Your task to perform on an android device: Empty the shopping cart on costco. Add macbook pro 15 inch to the cart on costco, then select checkout. Image 0: 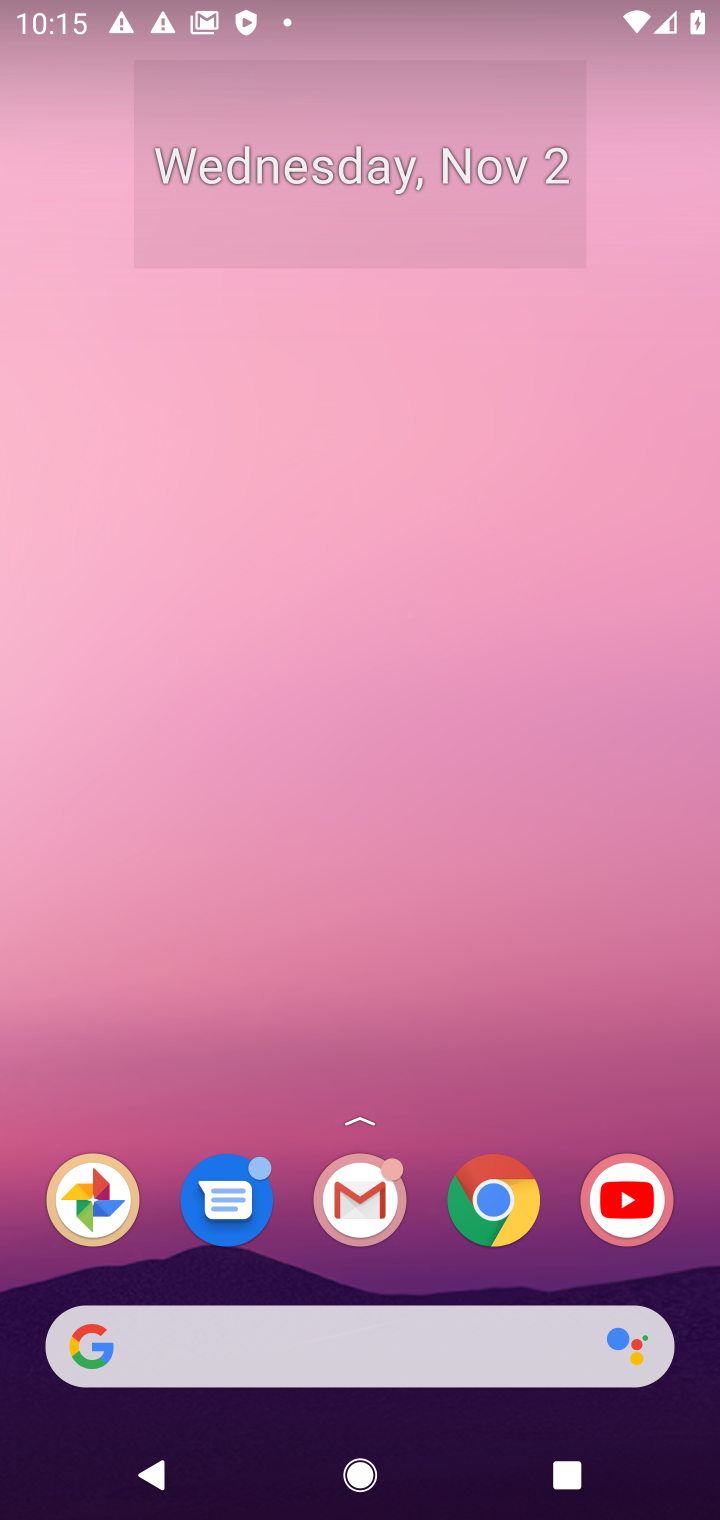
Step 0: click (495, 1201)
Your task to perform on an android device: Empty the shopping cart on costco. Add macbook pro 15 inch to the cart on costco, then select checkout. Image 1: 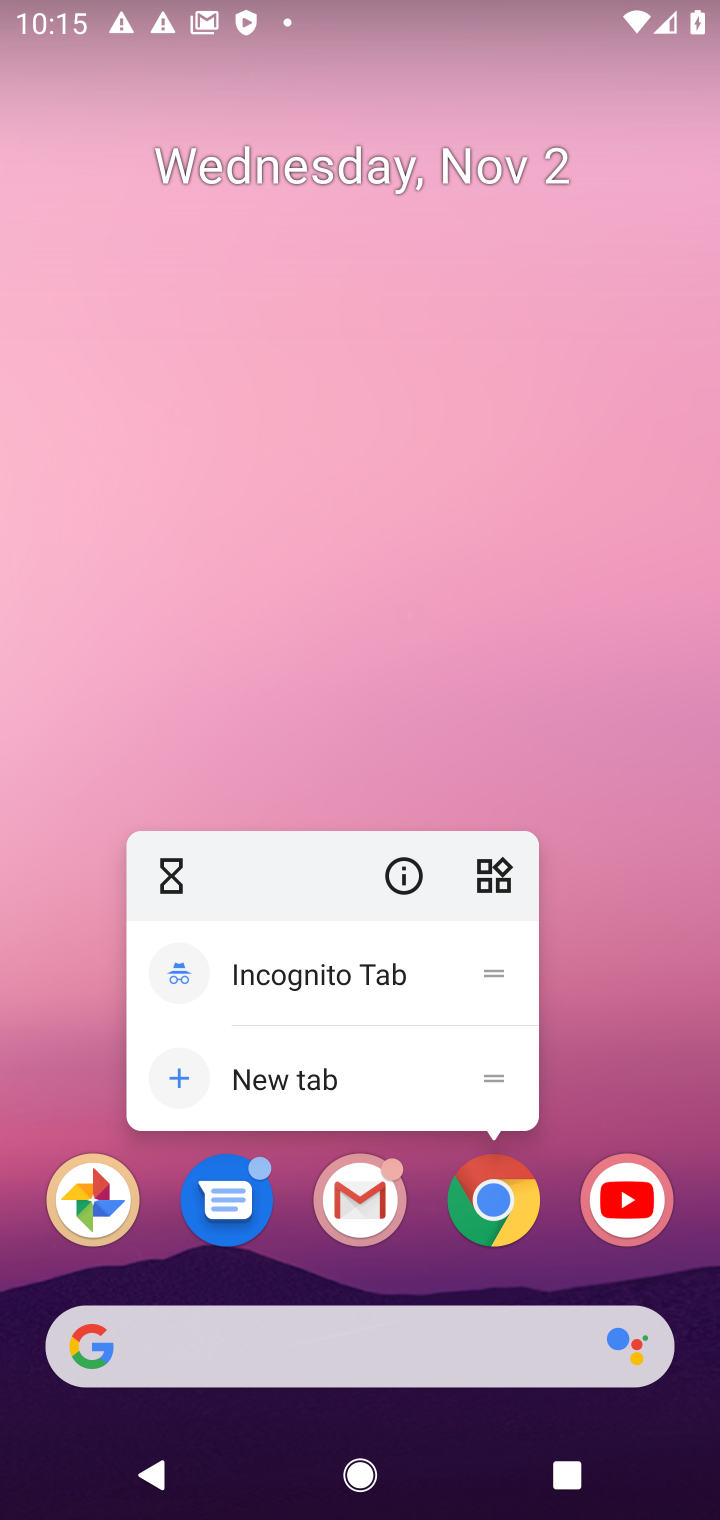
Step 1: click (495, 1201)
Your task to perform on an android device: Empty the shopping cart on costco. Add macbook pro 15 inch to the cart on costco, then select checkout. Image 2: 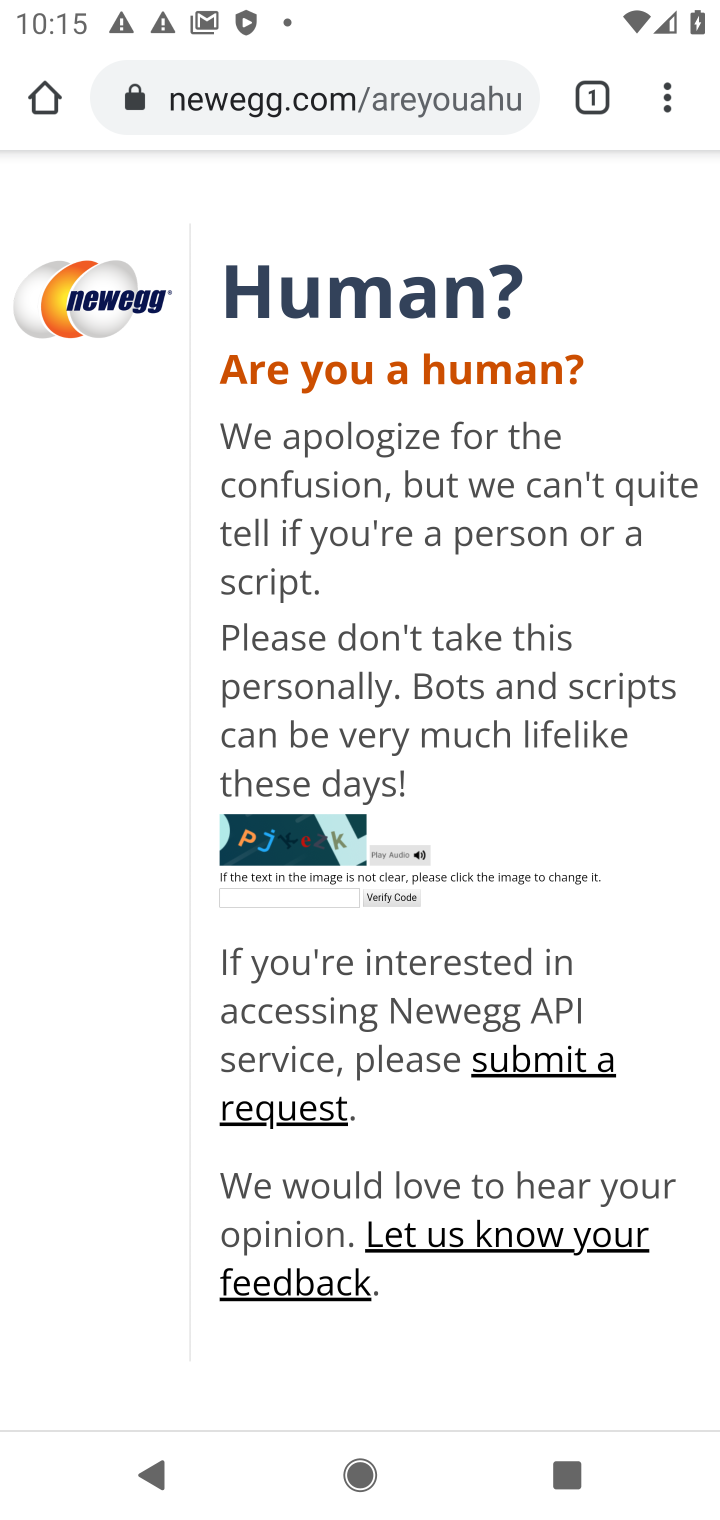
Step 2: click (424, 96)
Your task to perform on an android device: Empty the shopping cart on costco. Add macbook pro 15 inch to the cart on costco, then select checkout. Image 3: 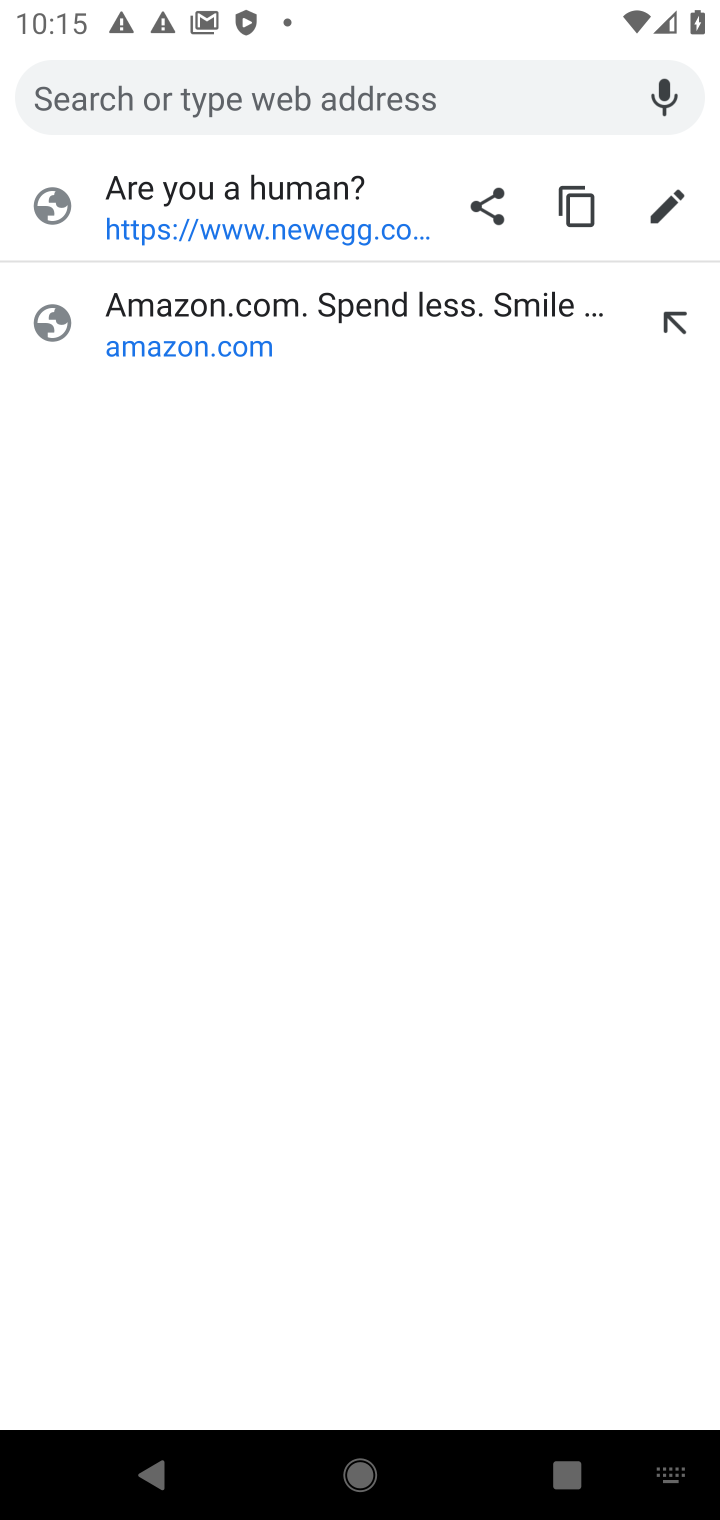
Step 3: press enter
Your task to perform on an android device: Empty the shopping cart on costco. Add macbook pro 15 inch to the cart on costco, then select checkout. Image 4: 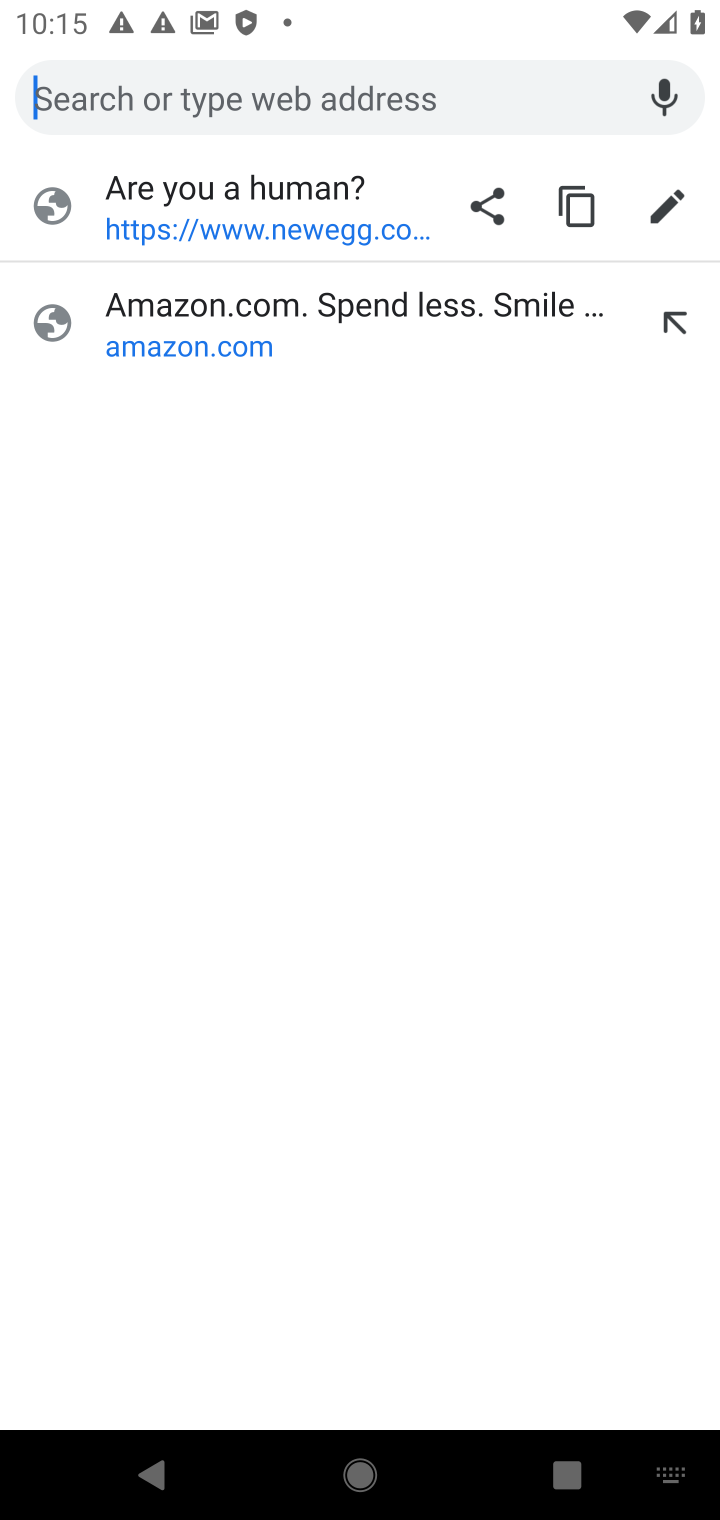
Step 4: type "costco"
Your task to perform on an android device: Empty the shopping cart on costco. Add macbook pro 15 inch to the cart on costco, then select checkout. Image 5: 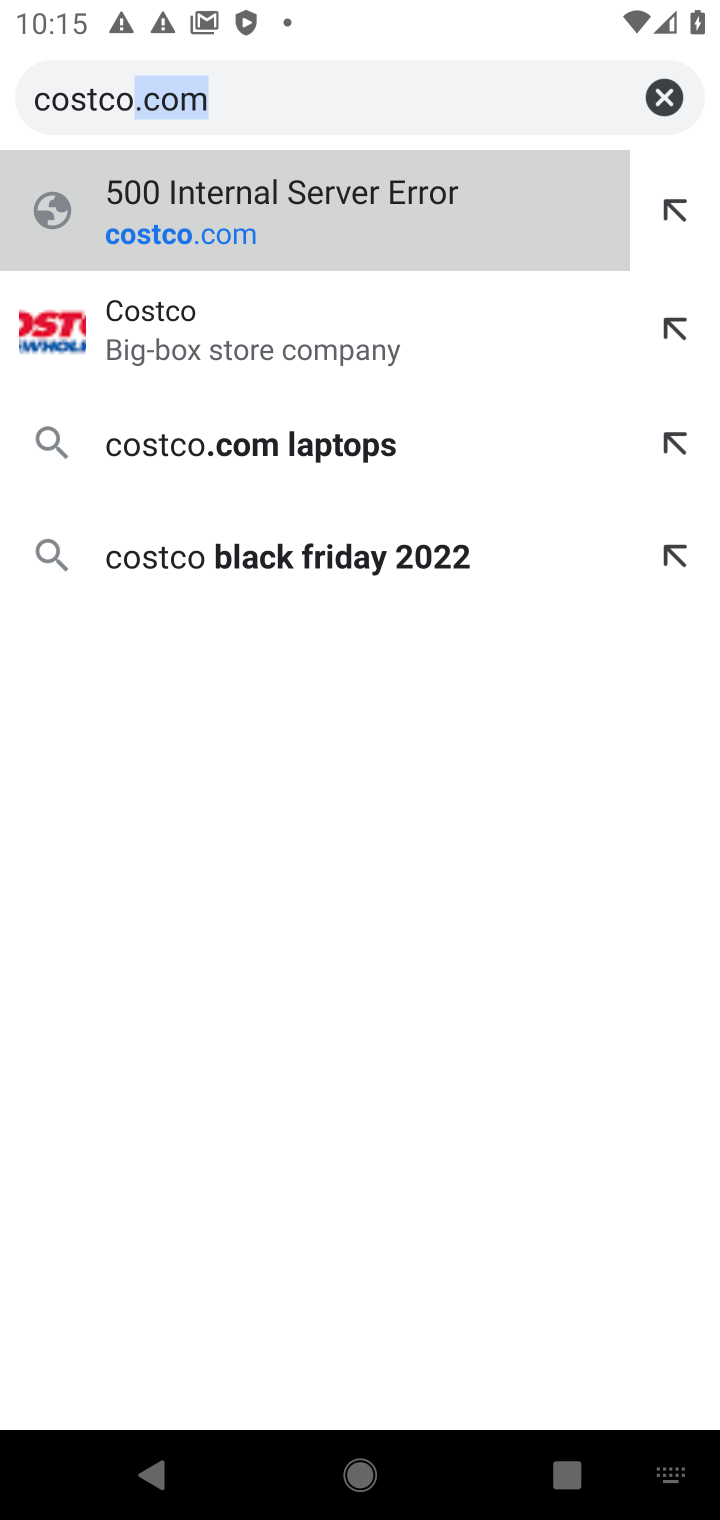
Step 5: click (314, 328)
Your task to perform on an android device: Empty the shopping cart on costco. Add macbook pro 15 inch to the cart on costco, then select checkout. Image 6: 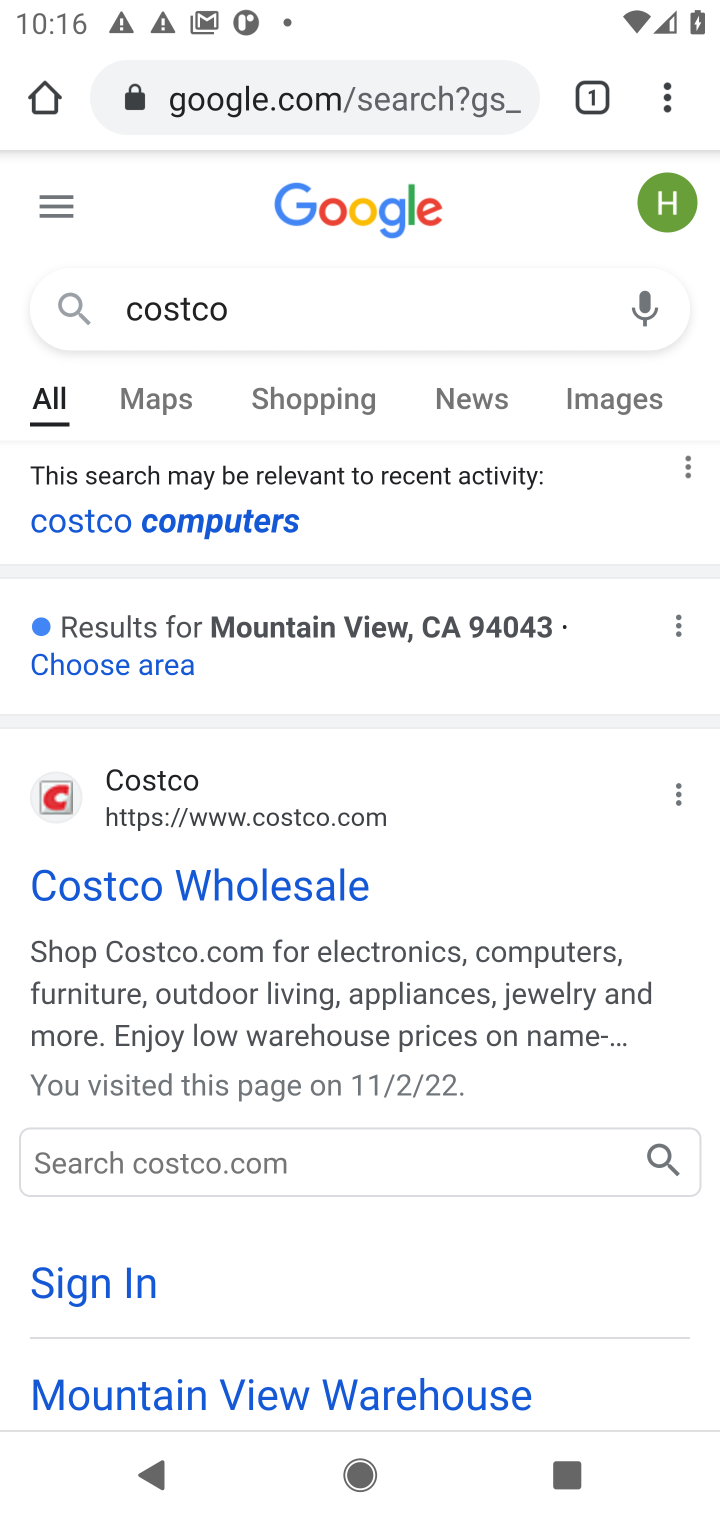
Step 6: click (307, 803)
Your task to perform on an android device: Empty the shopping cart on costco. Add macbook pro 15 inch to the cart on costco, then select checkout. Image 7: 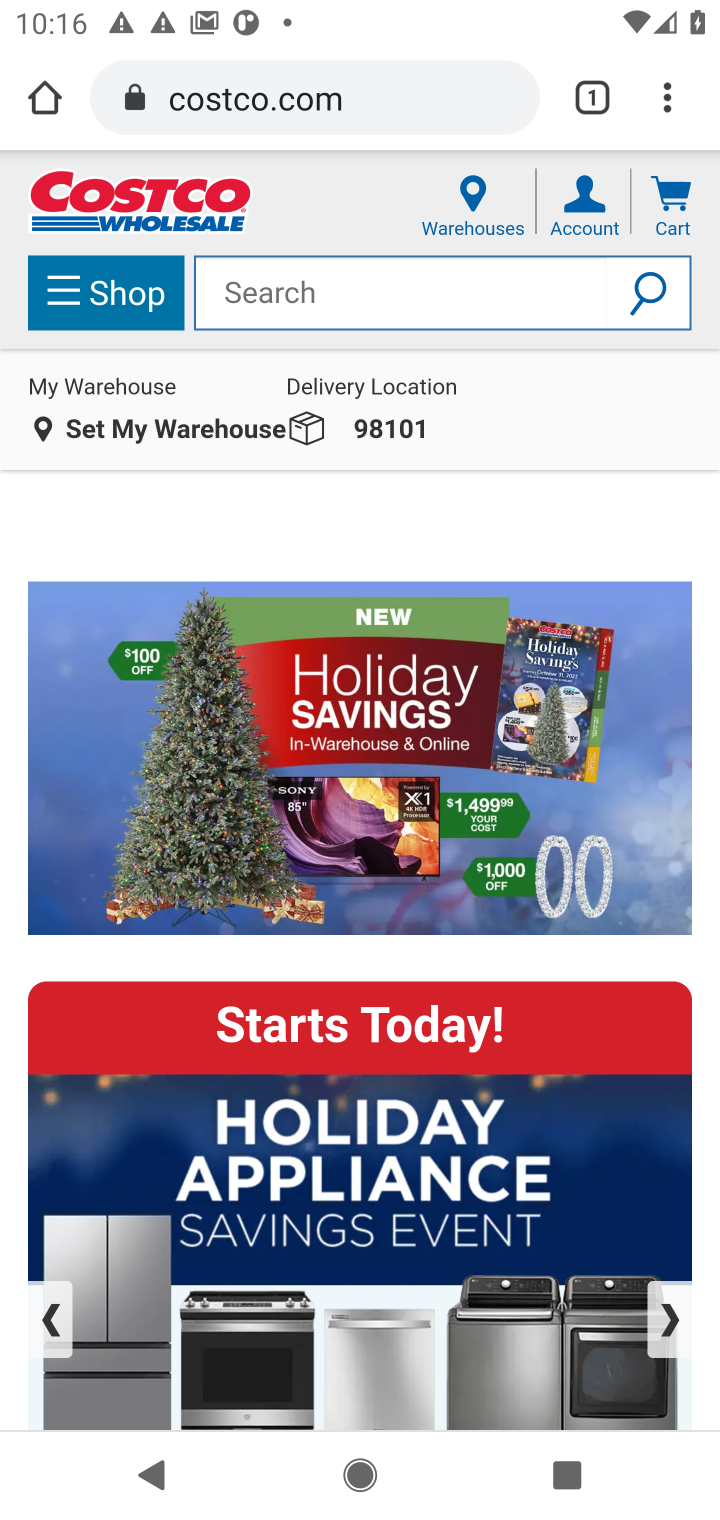
Step 7: click (680, 197)
Your task to perform on an android device: Empty the shopping cart on costco. Add macbook pro 15 inch to the cart on costco, then select checkout. Image 8: 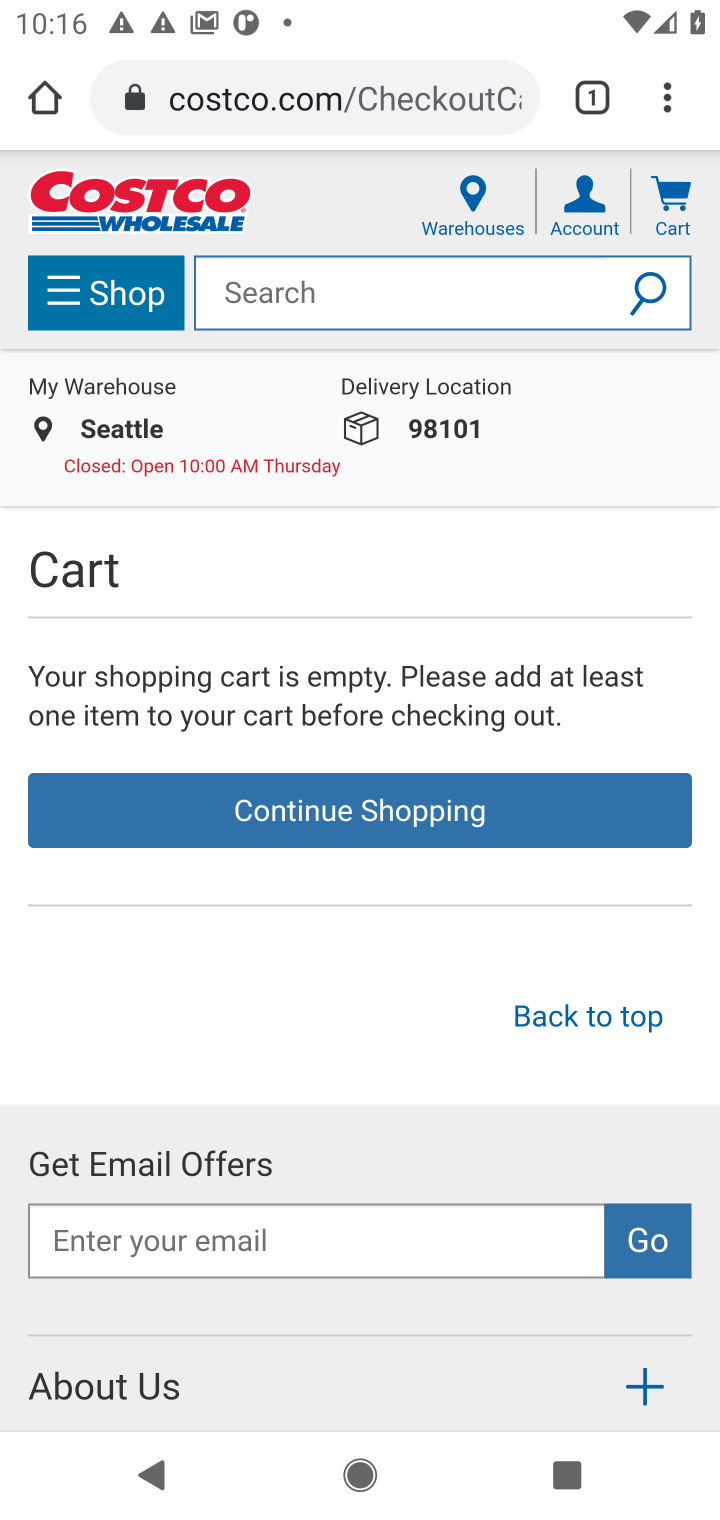
Step 8: click (333, 294)
Your task to perform on an android device: Empty the shopping cart on costco. Add macbook pro 15 inch to the cart on costco, then select checkout. Image 9: 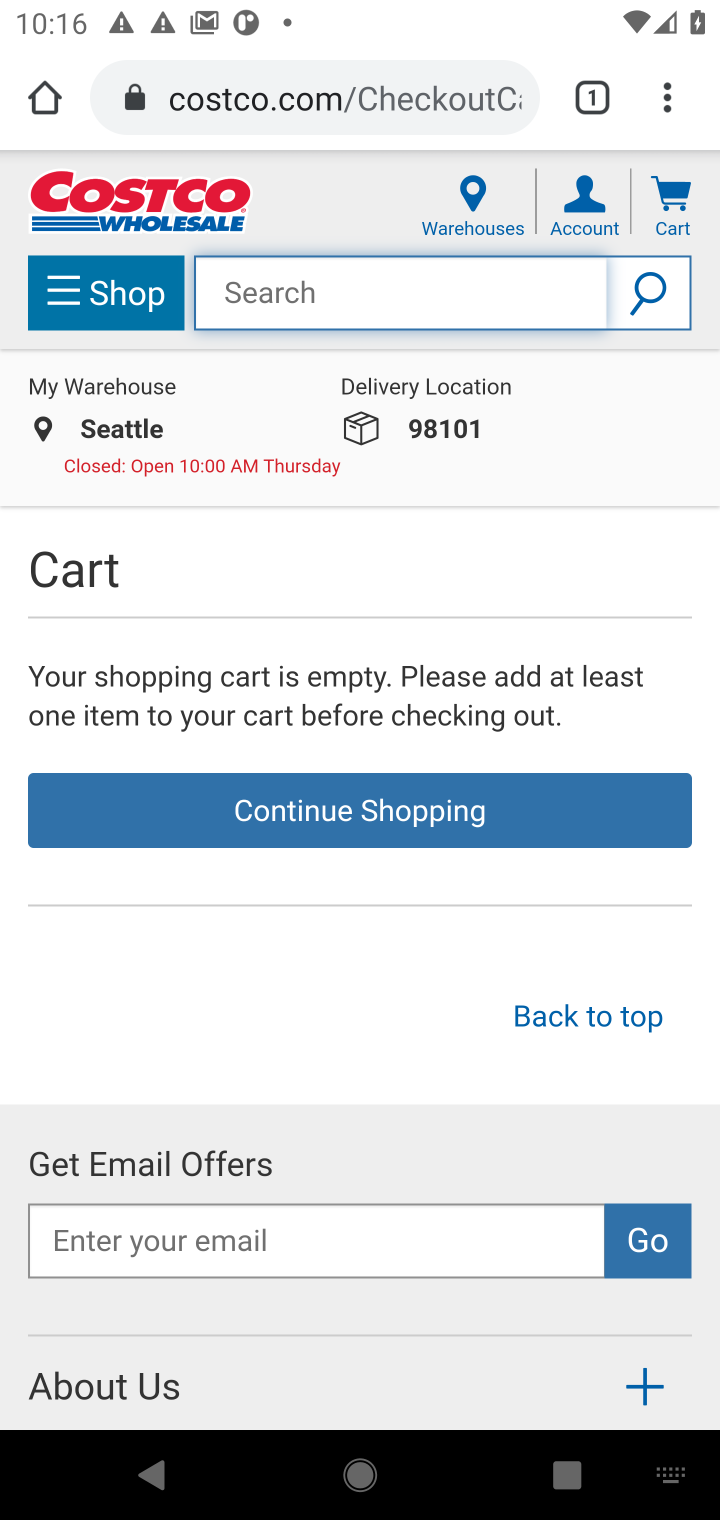
Step 9: type "macbook pro 15 inch"
Your task to perform on an android device: Empty the shopping cart on costco. Add macbook pro 15 inch to the cart on costco, then select checkout. Image 10: 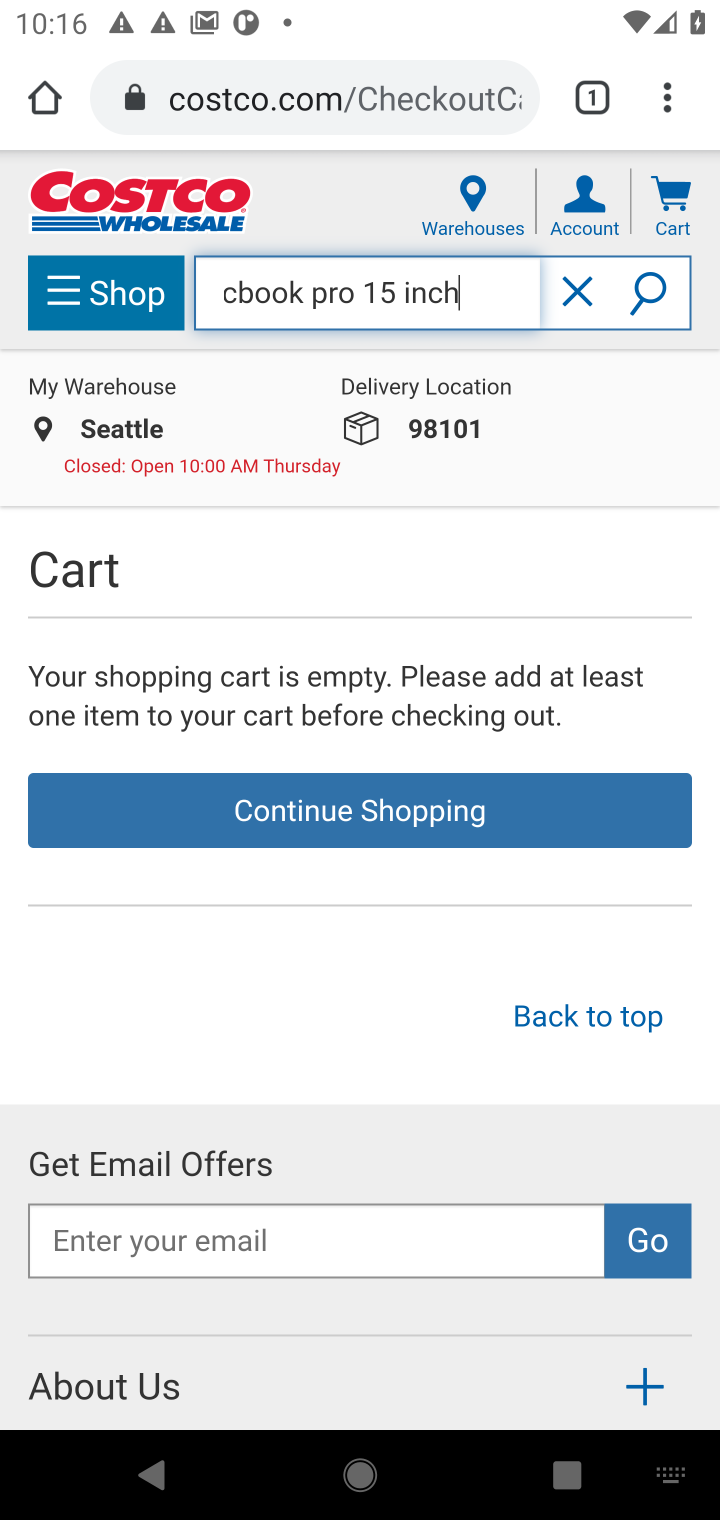
Step 10: press enter
Your task to perform on an android device: Empty the shopping cart on costco. Add macbook pro 15 inch to the cart on costco, then select checkout. Image 11: 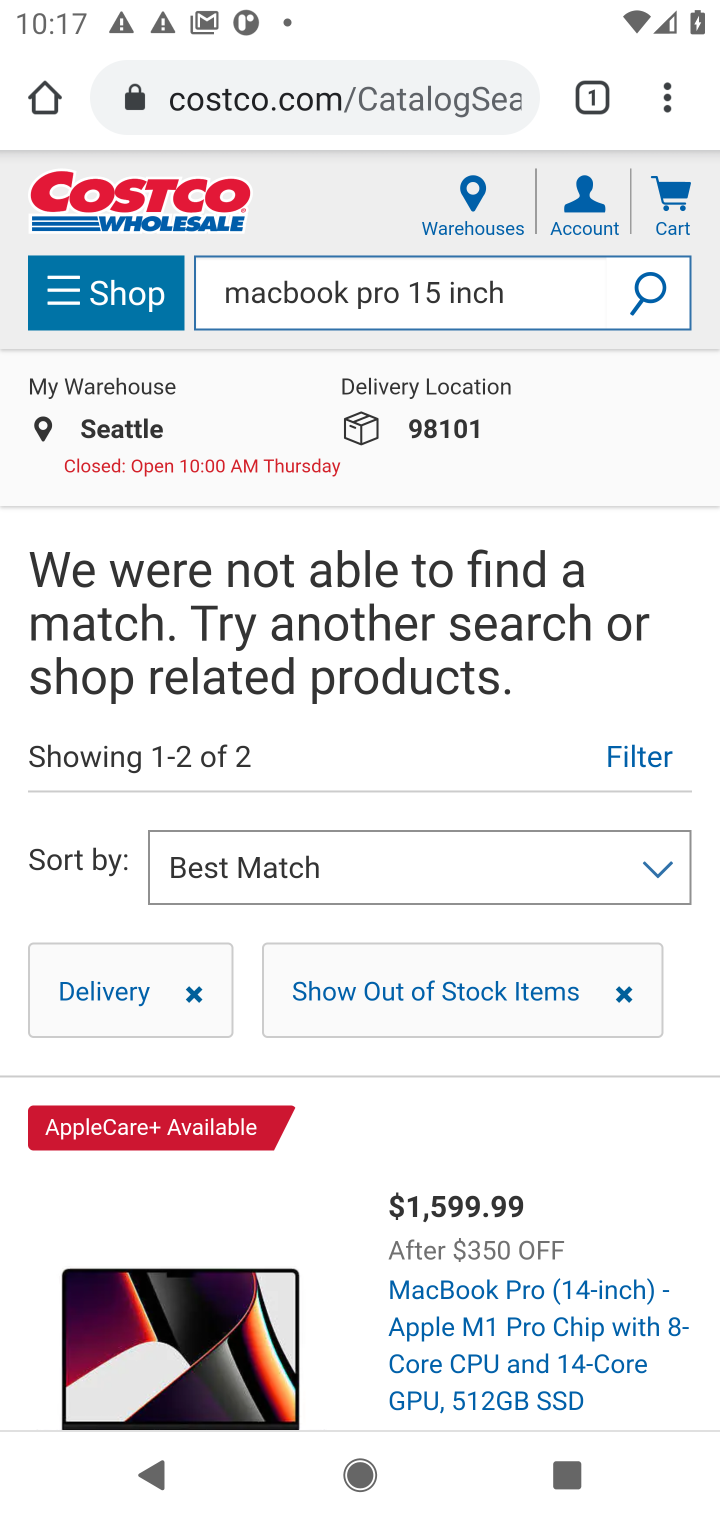
Step 11: task complete